Your task to perform on an android device: Search for vegetarian restaurants on Maps Image 0: 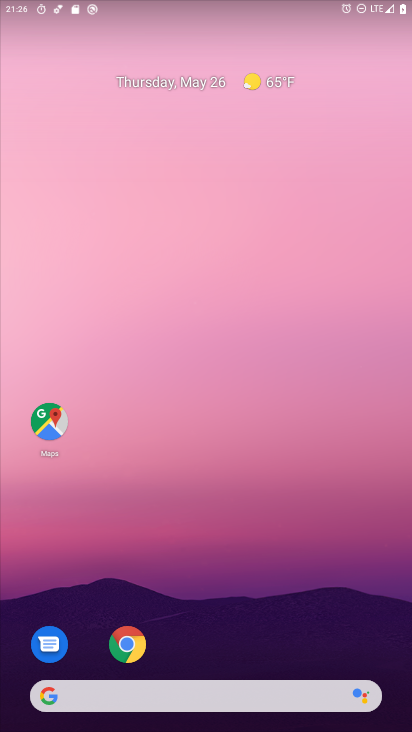
Step 0: click (48, 433)
Your task to perform on an android device: Search for vegetarian restaurants on Maps Image 1: 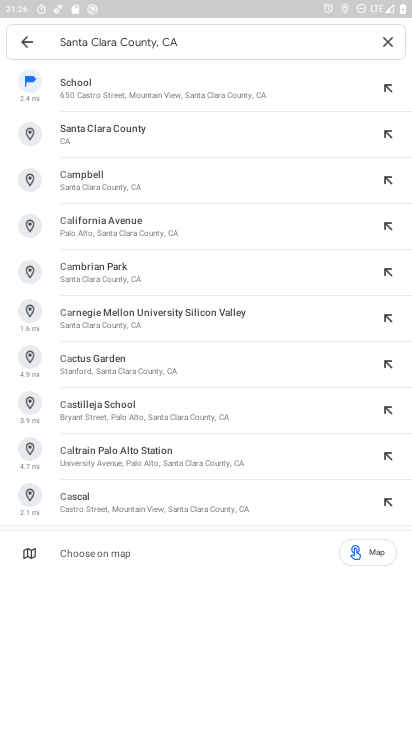
Step 1: click (389, 46)
Your task to perform on an android device: Search for vegetarian restaurants on Maps Image 2: 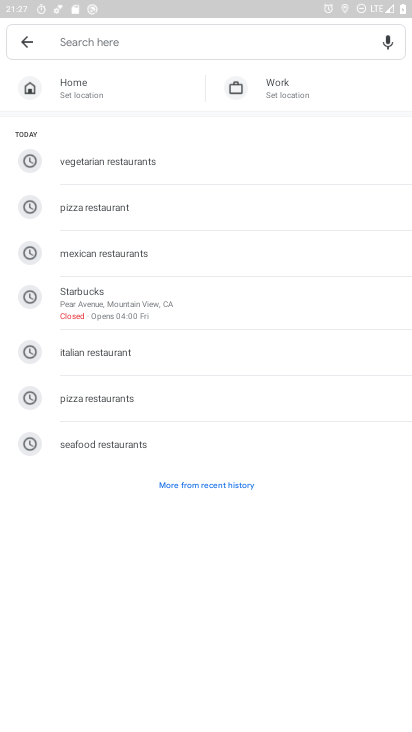
Step 2: click (136, 157)
Your task to perform on an android device: Search for vegetarian restaurants on Maps Image 3: 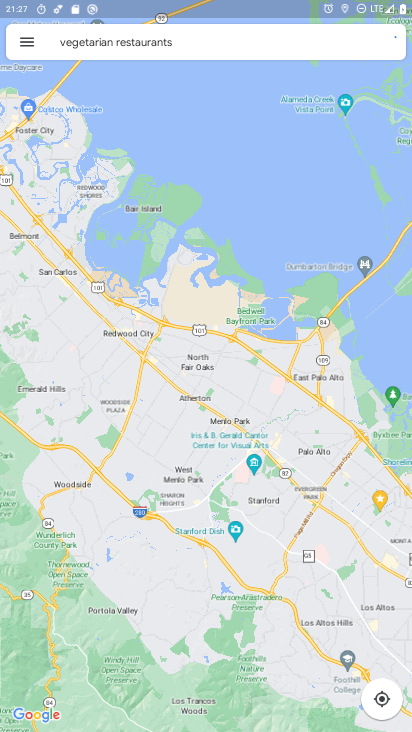
Step 3: task complete